Your task to perform on an android device: toggle improve location accuracy Image 0: 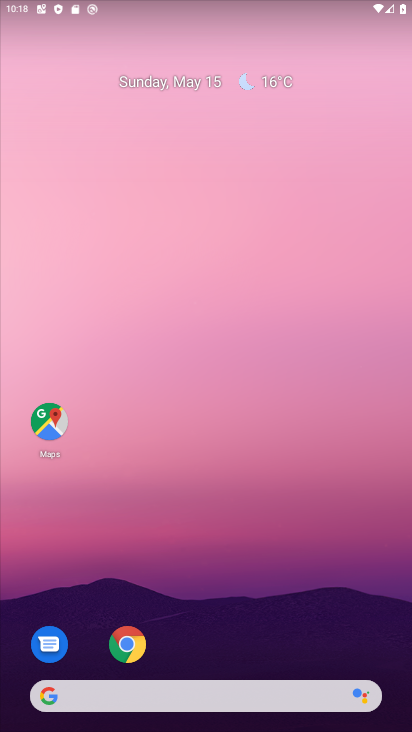
Step 0: drag from (292, 645) to (258, 124)
Your task to perform on an android device: toggle improve location accuracy Image 1: 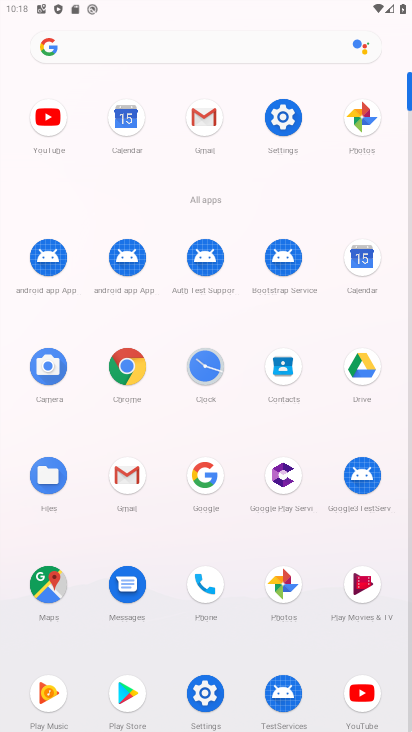
Step 1: click (215, 693)
Your task to perform on an android device: toggle improve location accuracy Image 2: 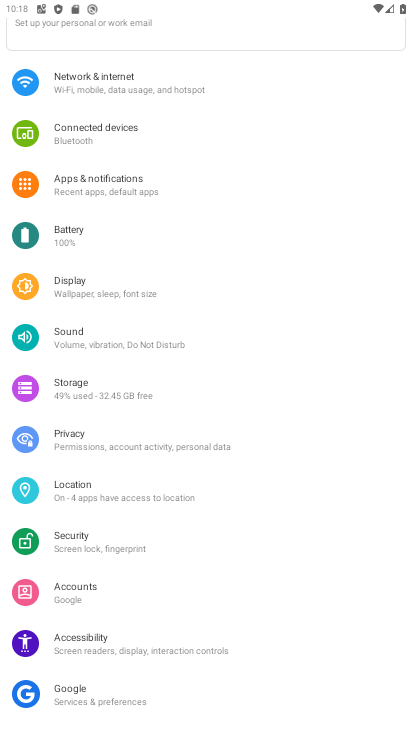
Step 2: click (104, 501)
Your task to perform on an android device: toggle improve location accuracy Image 3: 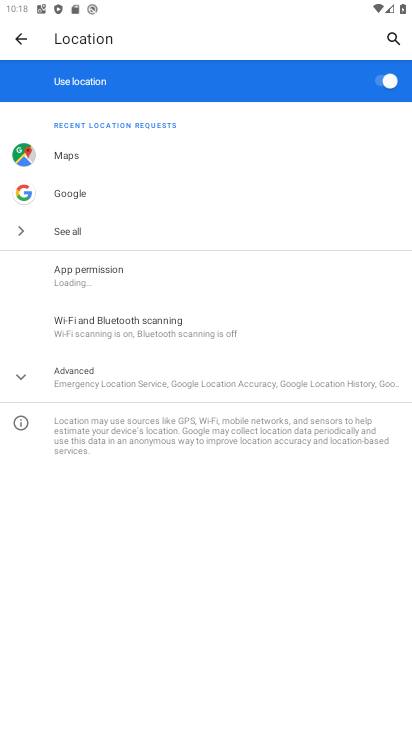
Step 3: click (163, 373)
Your task to perform on an android device: toggle improve location accuracy Image 4: 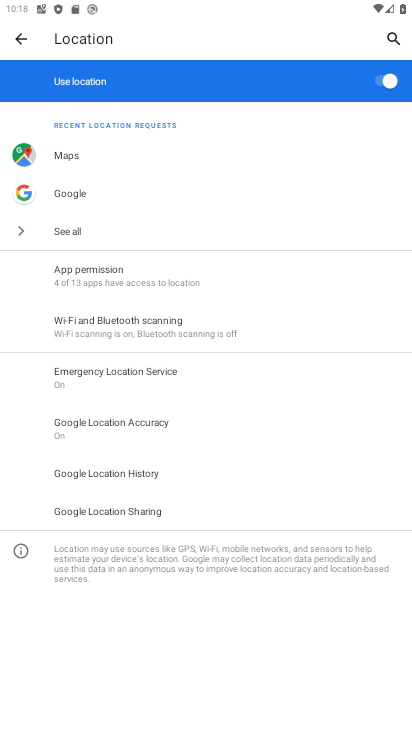
Step 4: click (169, 424)
Your task to perform on an android device: toggle improve location accuracy Image 5: 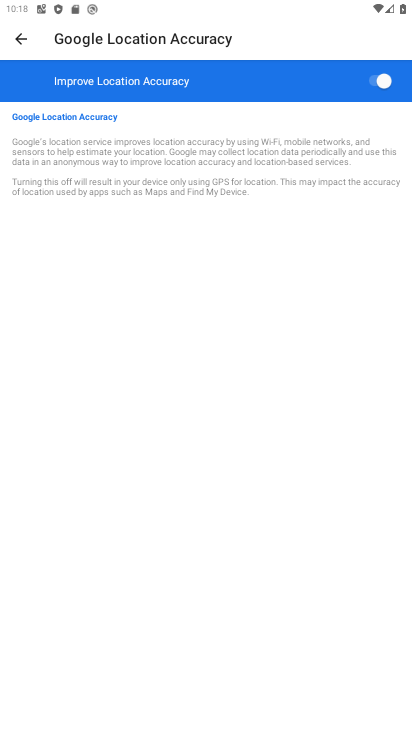
Step 5: click (375, 82)
Your task to perform on an android device: toggle improve location accuracy Image 6: 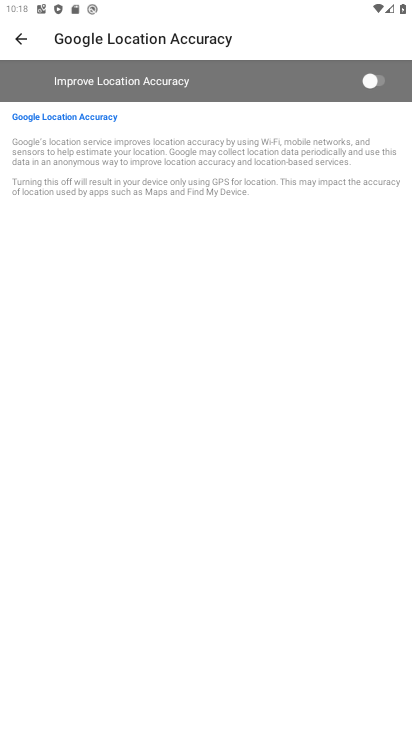
Step 6: task complete